Your task to perform on an android device: Open the Play Movies app and select the watchlist tab. Image 0: 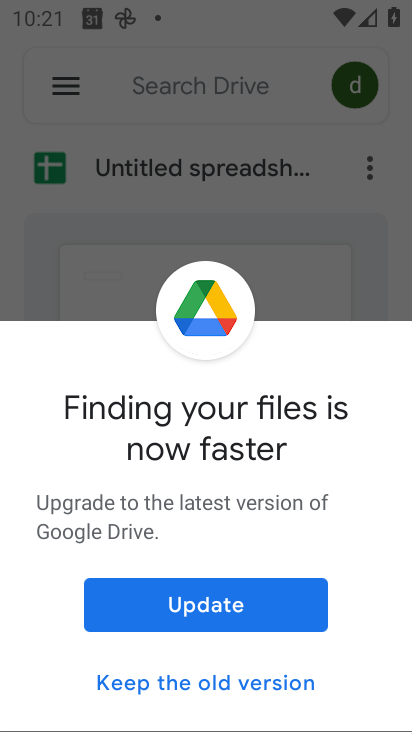
Step 0: press home button
Your task to perform on an android device: Open the Play Movies app and select the watchlist tab. Image 1: 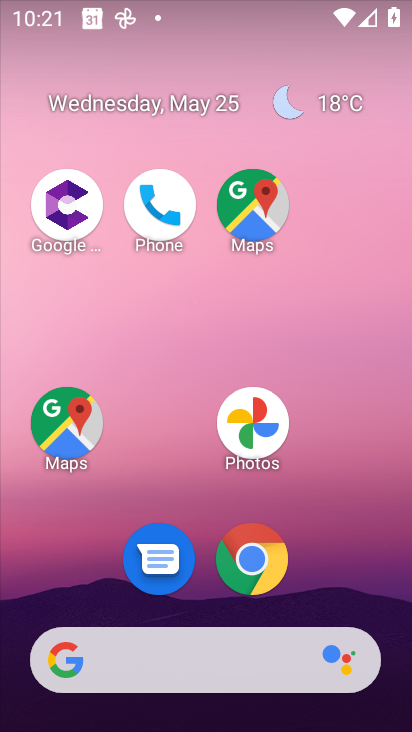
Step 1: drag from (330, 569) to (321, 80)
Your task to perform on an android device: Open the Play Movies app and select the watchlist tab. Image 2: 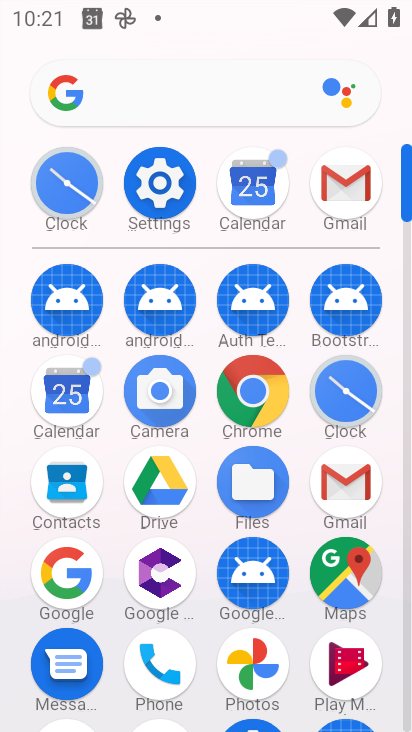
Step 2: click (349, 658)
Your task to perform on an android device: Open the Play Movies app and select the watchlist tab. Image 3: 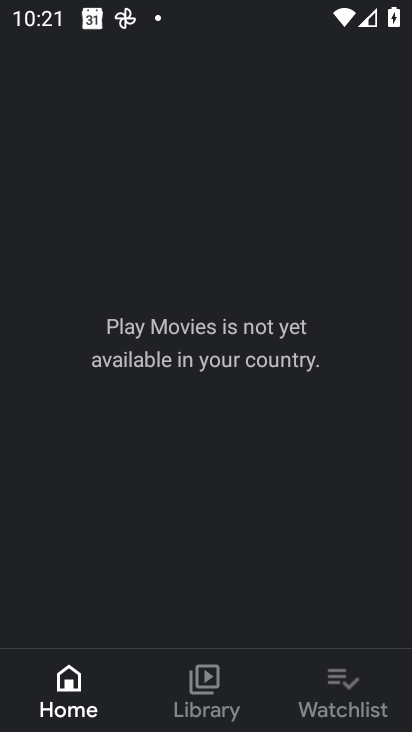
Step 3: click (347, 671)
Your task to perform on an android device: Open the Play Movies app and select the watchlist tab. Image 4: 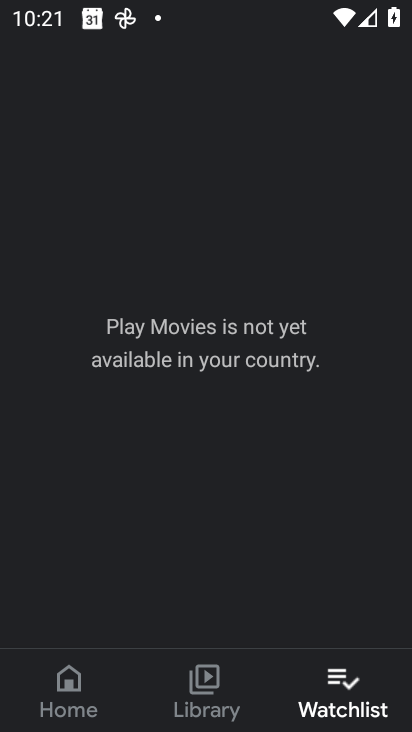
Step 4: task complete